Your task to perform on an android device: open a new tab in the chrome app Image 0: 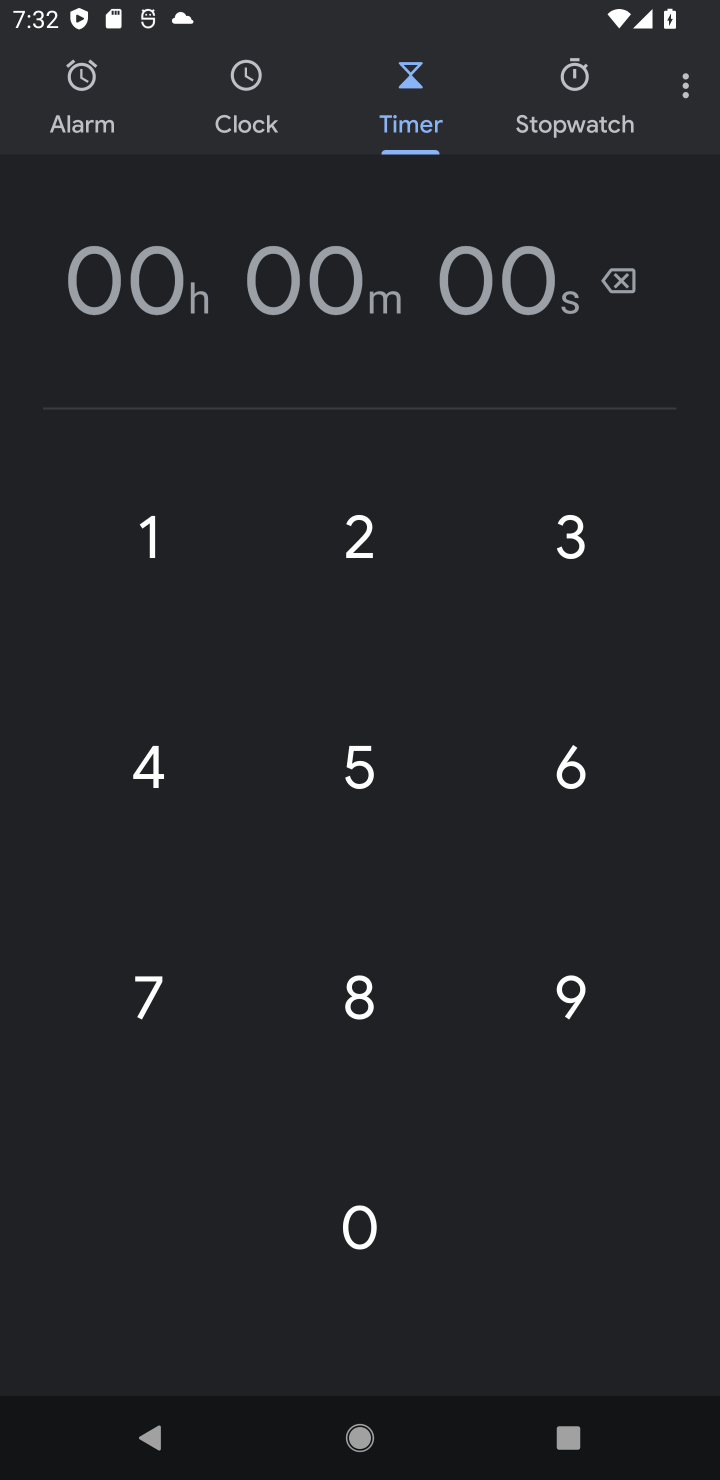
Step 0: press home button
Your task to perform on an android device: open a new tab in the chrome app Image 1: 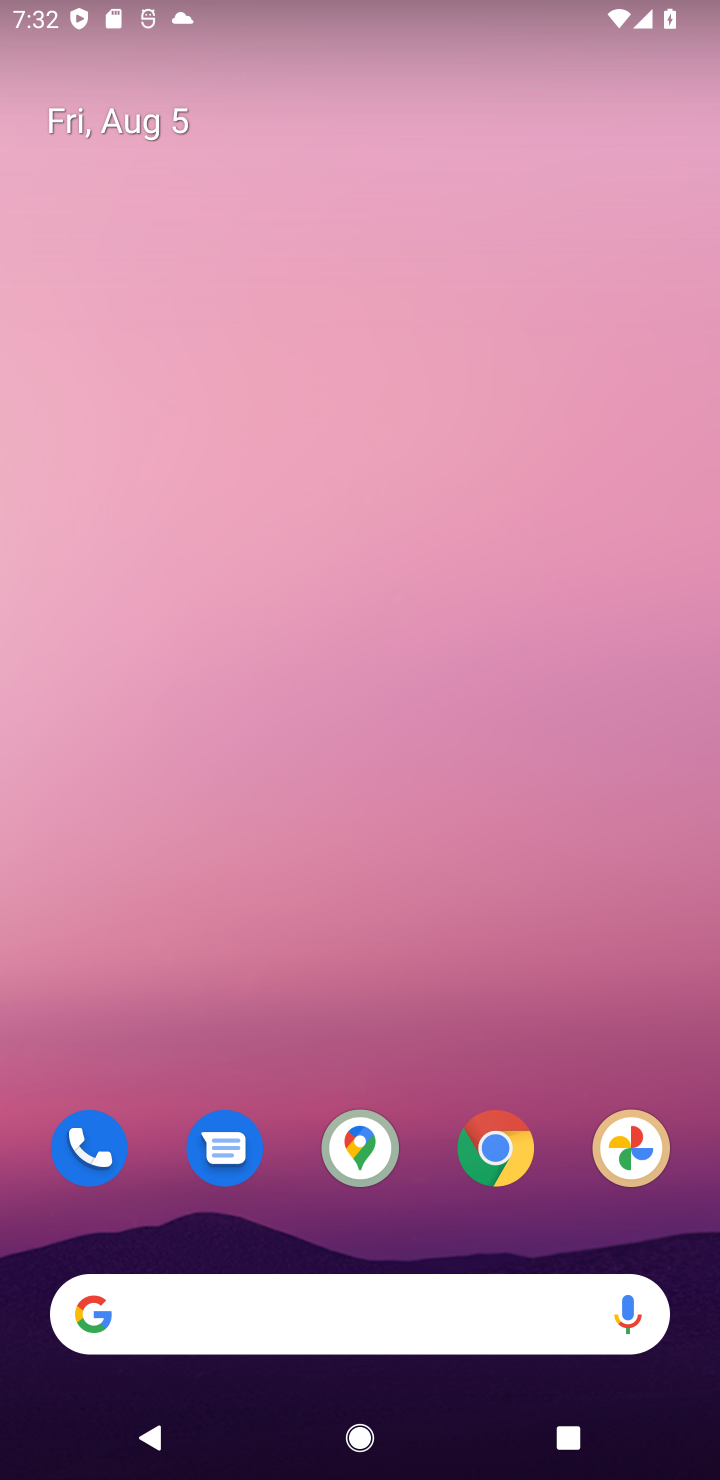
Step 1: click (451, 1258)
Your task to perform on an android device: open a new tab in the chrome app Image 2: 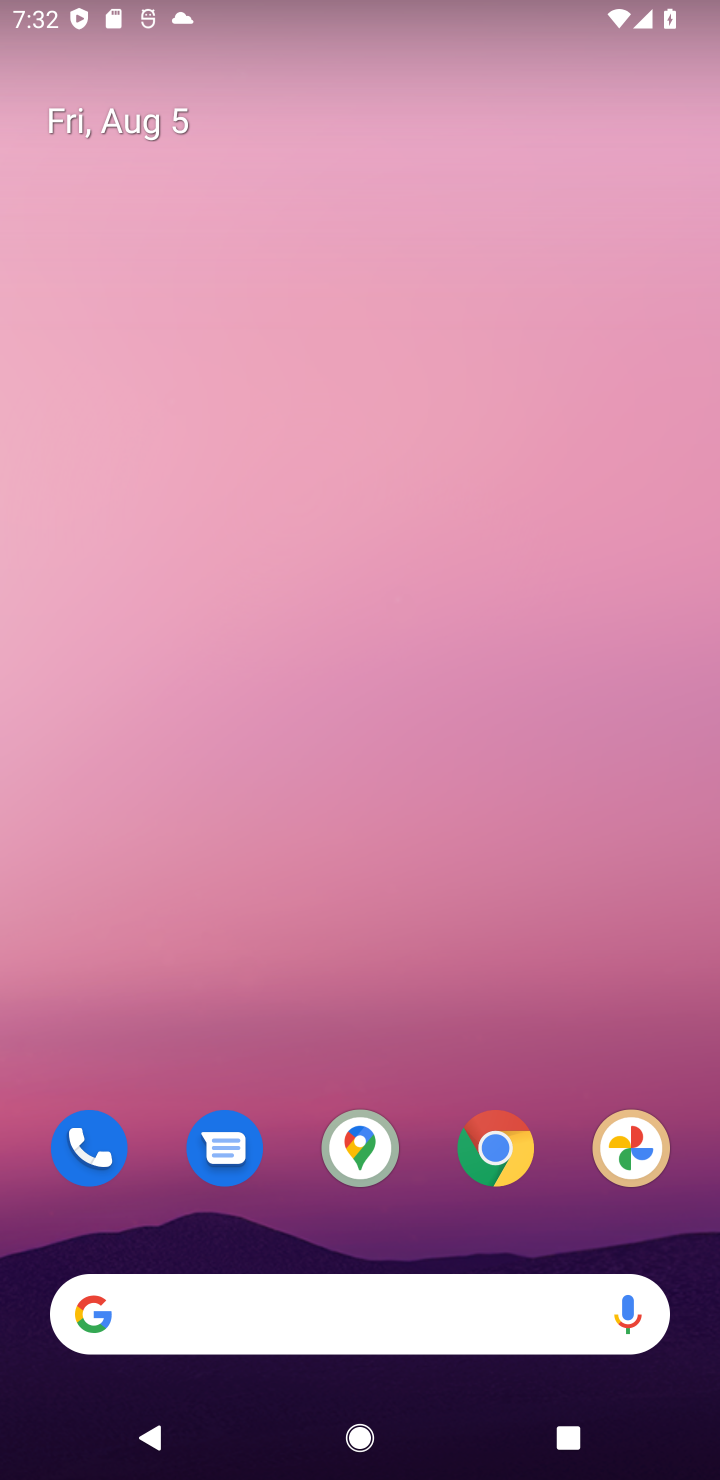
Step 2: click (495, 1134)
Your task to perform on an android device: open a new tab in the chrome app Image 3: 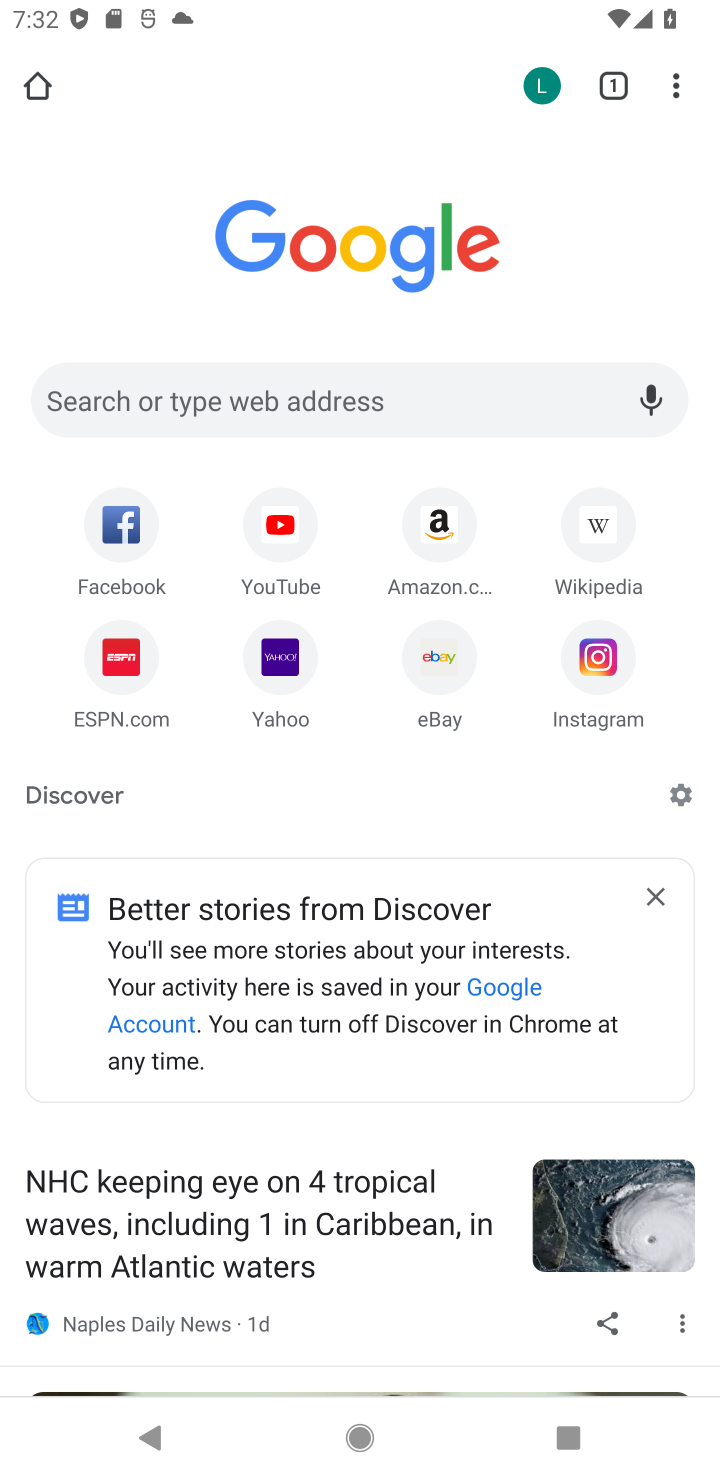
Step 3: click (622, 110)
Your task to perform on an android device: open a new tab in the chrome app Image 4: 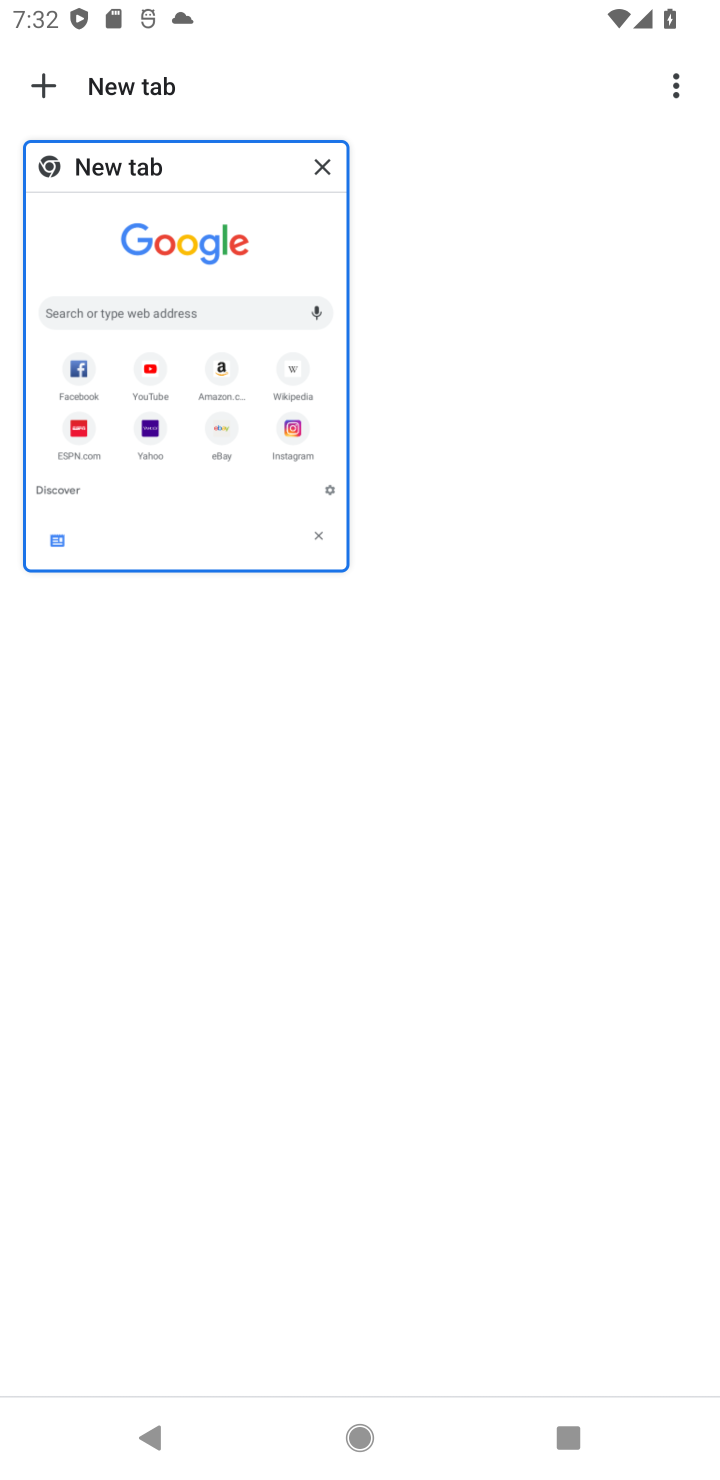
Step 4: click (41, 79)
Your task to perform on an android device: open a new tab in the chrome app Image 5: 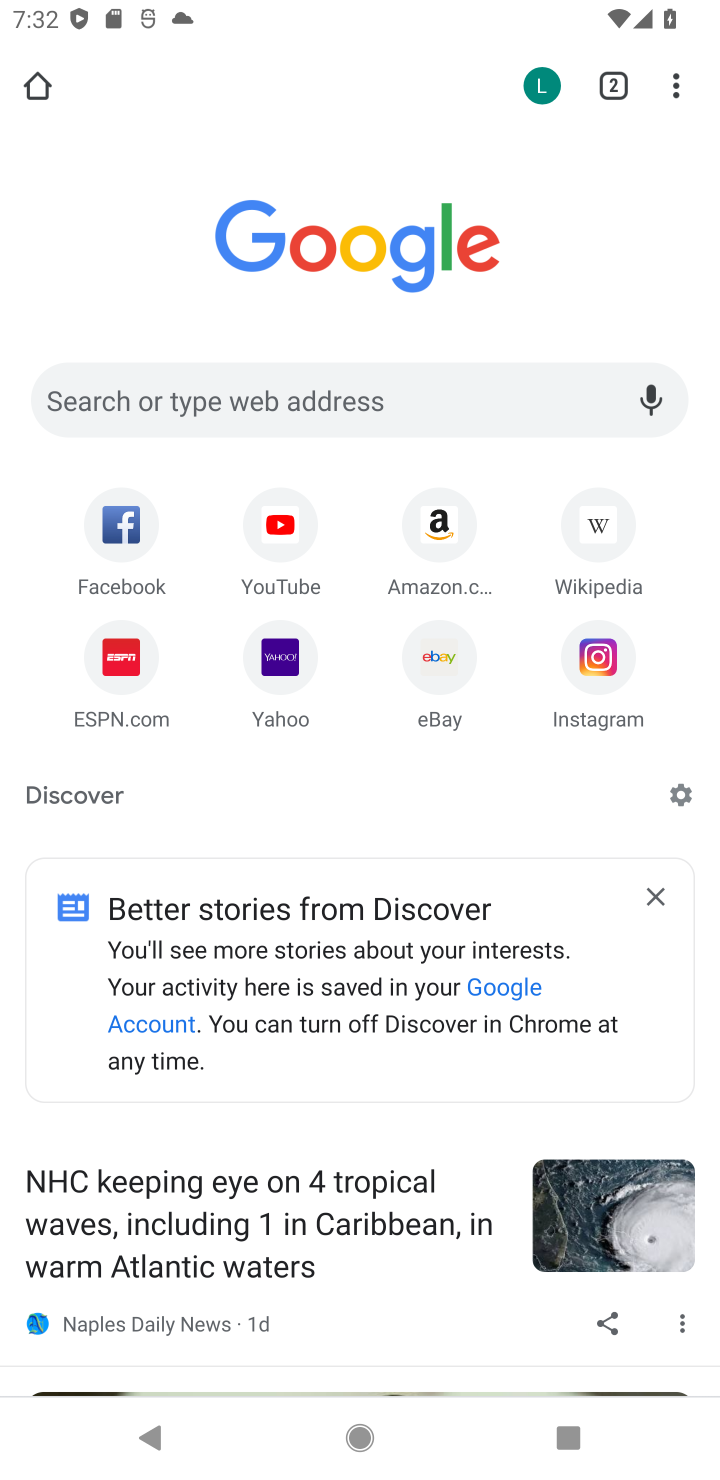
Step 5: task complete